Your task to perform on an android device: change notifications settings Image 0: 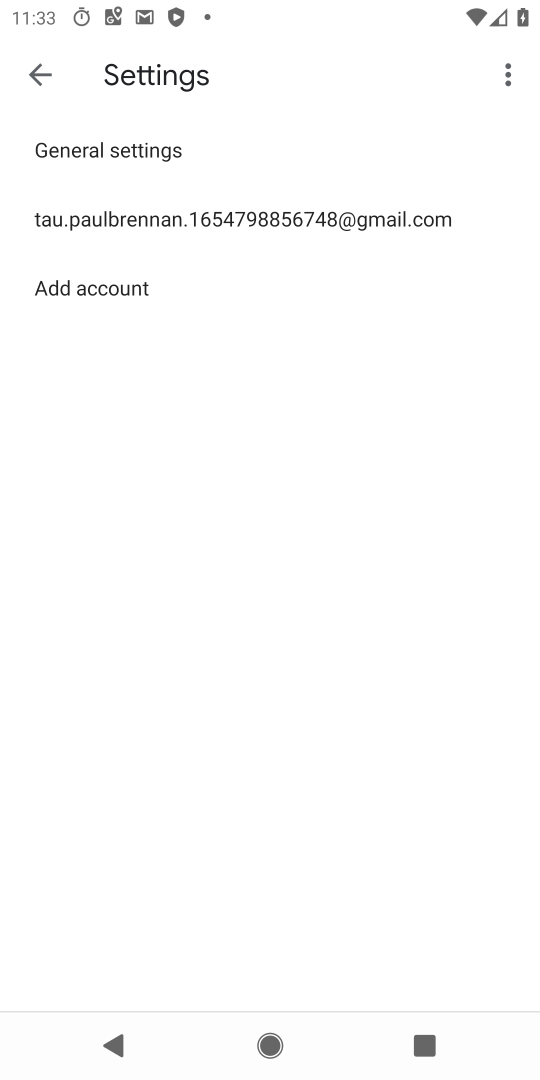
Step 0: press home button
Your task to perform on an android device: change notifications settings Image 1: 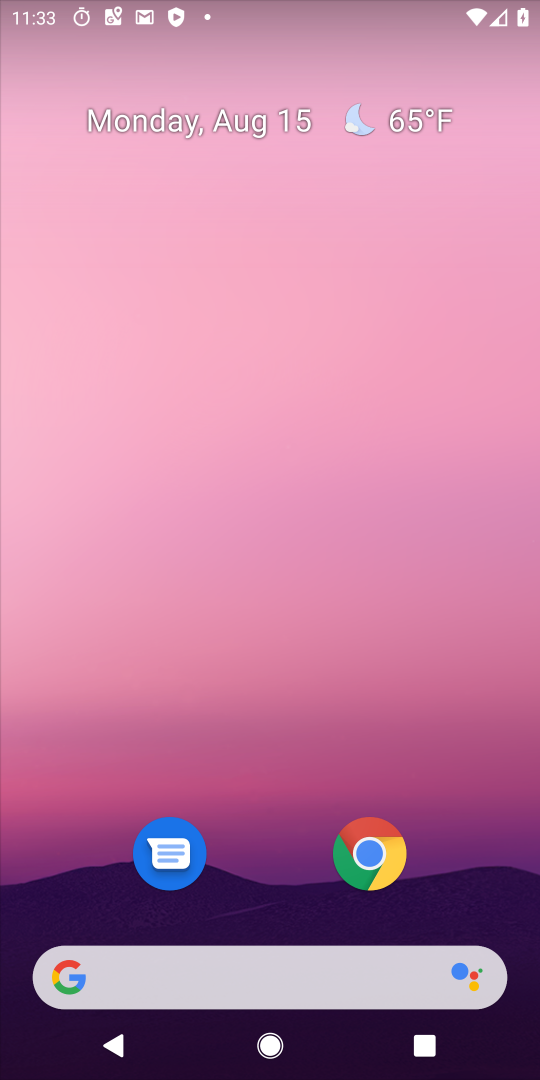
Step 1: drag from (200, 912) to (215, 201)
Your task to perform on an android device: change notifications settings Image 2: 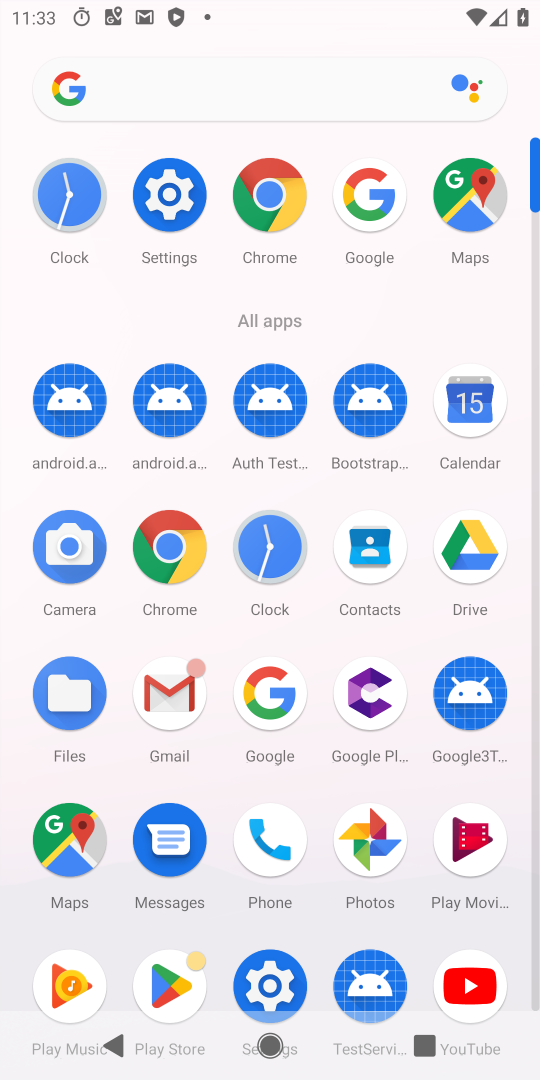
Step 2: click (157, 196)
Your task to perform on an android device: change notifications settings Image 3: 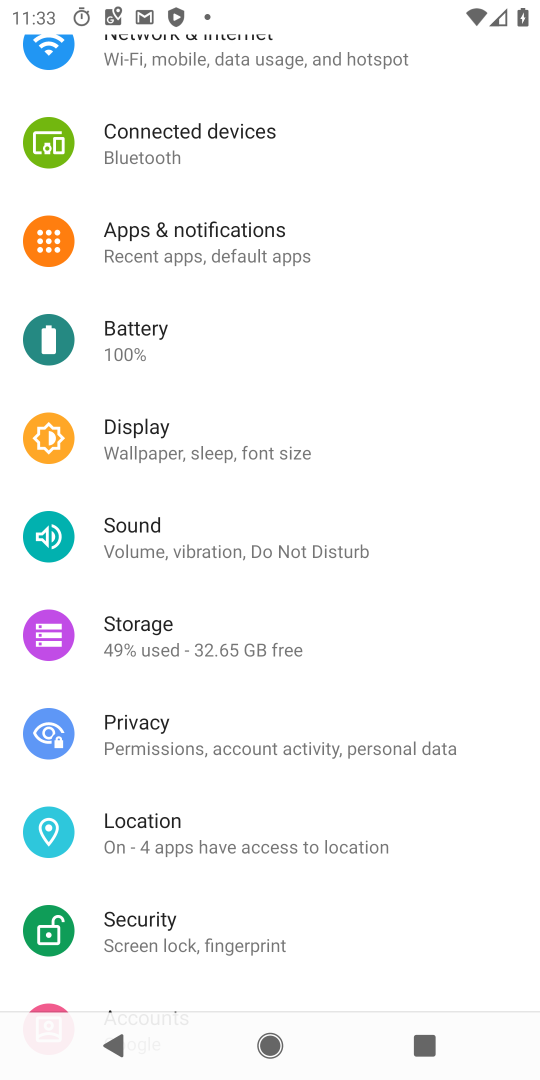
Step 3: click (193, 236)
Your task to perform on an android device: change notifications settings Image 4: 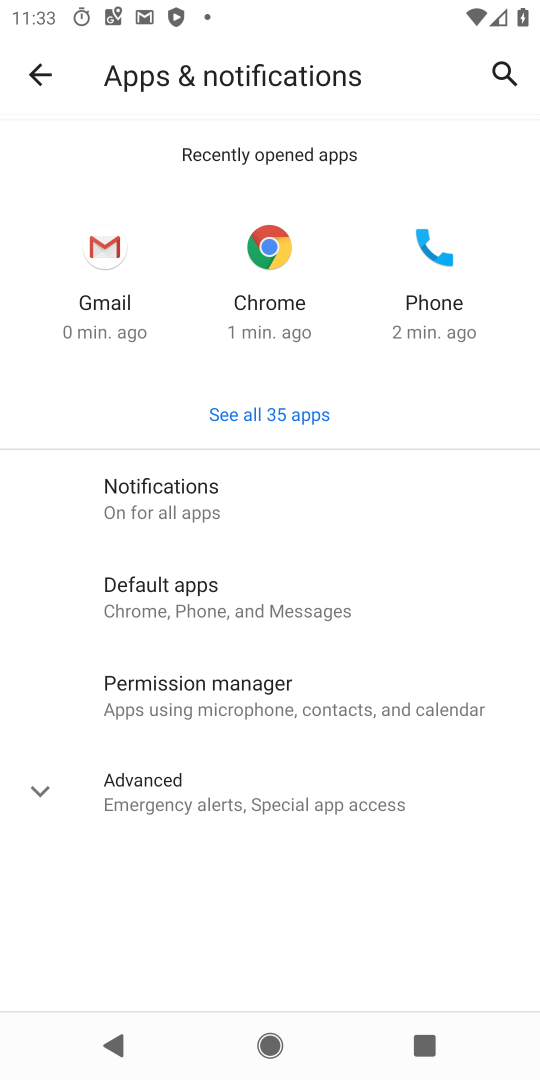
Step 4: click (147, 795)
Your task to perform on an android device: change notifications settings Image 5: 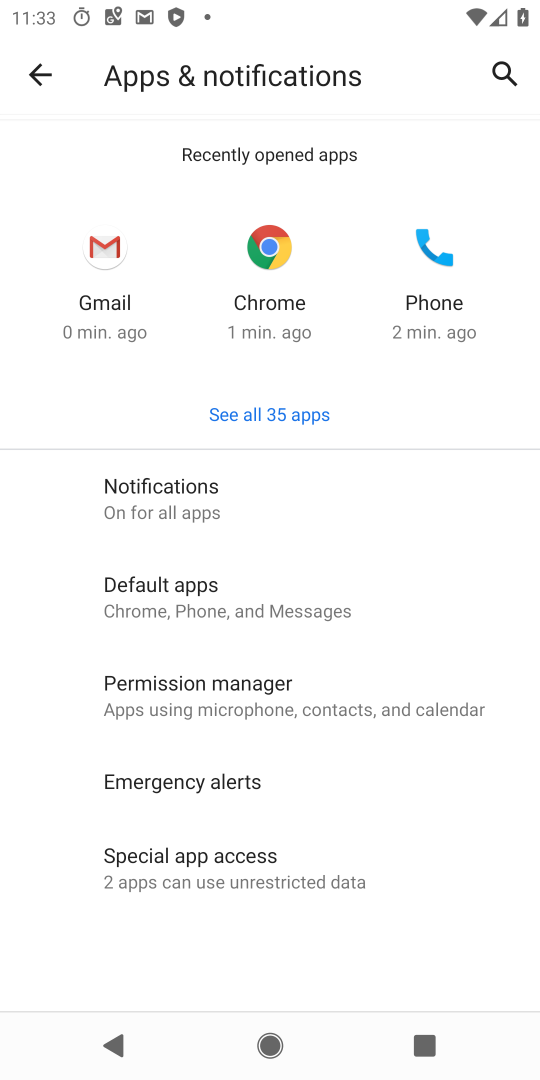
Step 5: task complete